Your task to perform on an android device: allow cookies in the chrome app Image 0: 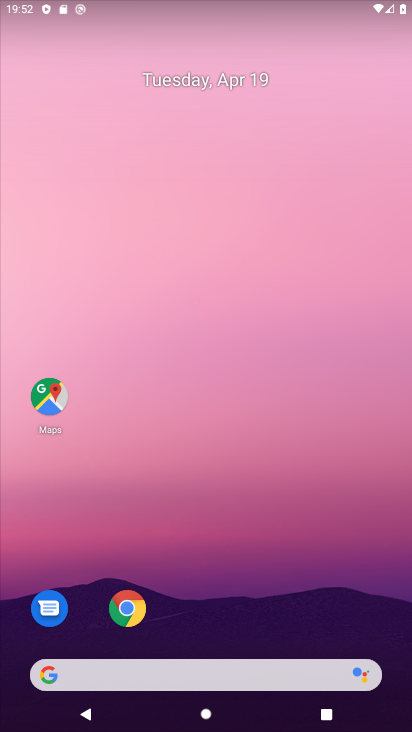
Step 0: click (134, 613)
Your task to perform on an android device: allow cookies in the chrome app Image 1: 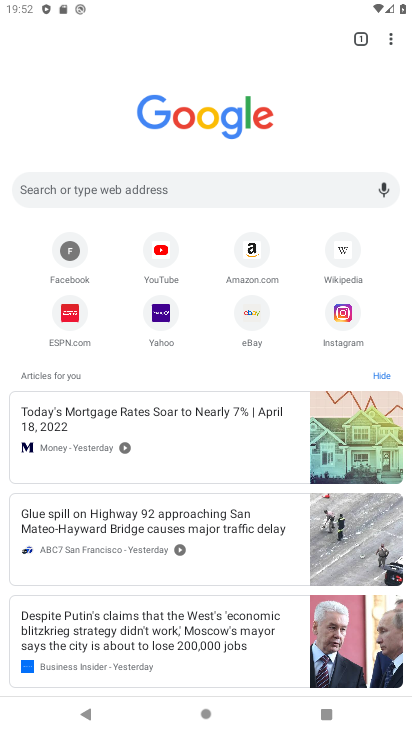
Step 1: click (385, 38)
Your task to perform on an android device: allow cookies in the chrome app Image 2: 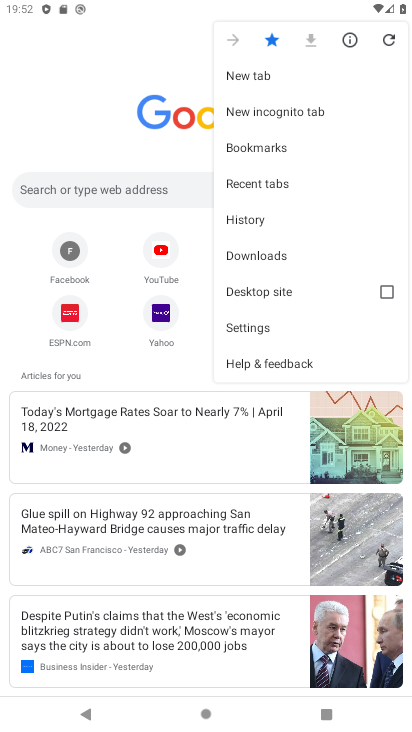
Step 2: click (280, 320)
Your task to perform on an android device: allow cookies in the chrome app Image 3: 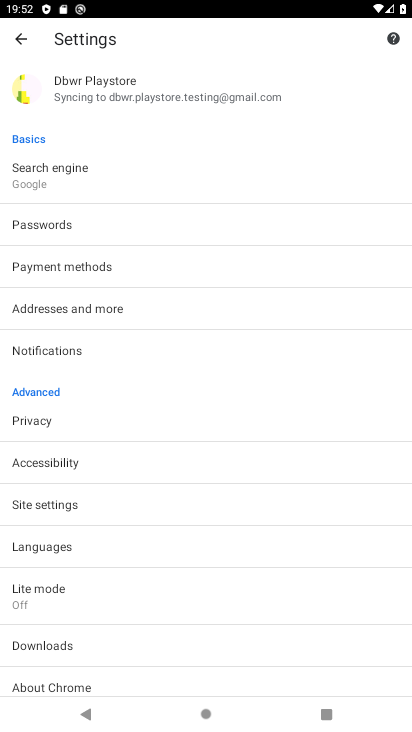
Step 3: click (106, 497)
Your task to perform on an android device: allow cookies in the chrome app Image 4: 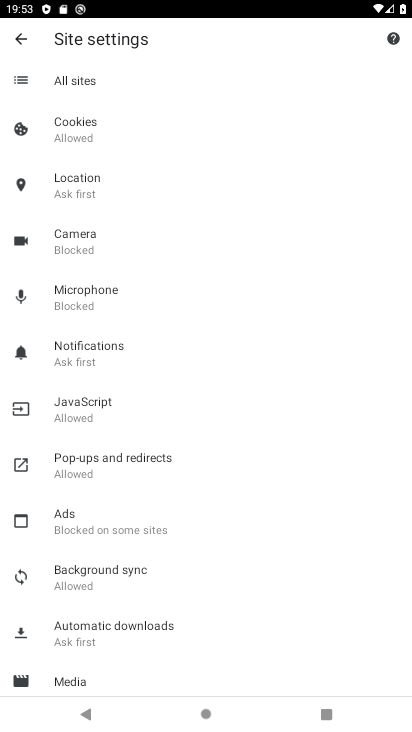
Step 4: task complete